Your task to perform on an android device: open app "DoorDash - Food Delivery" (install if not already installed) Image 0: 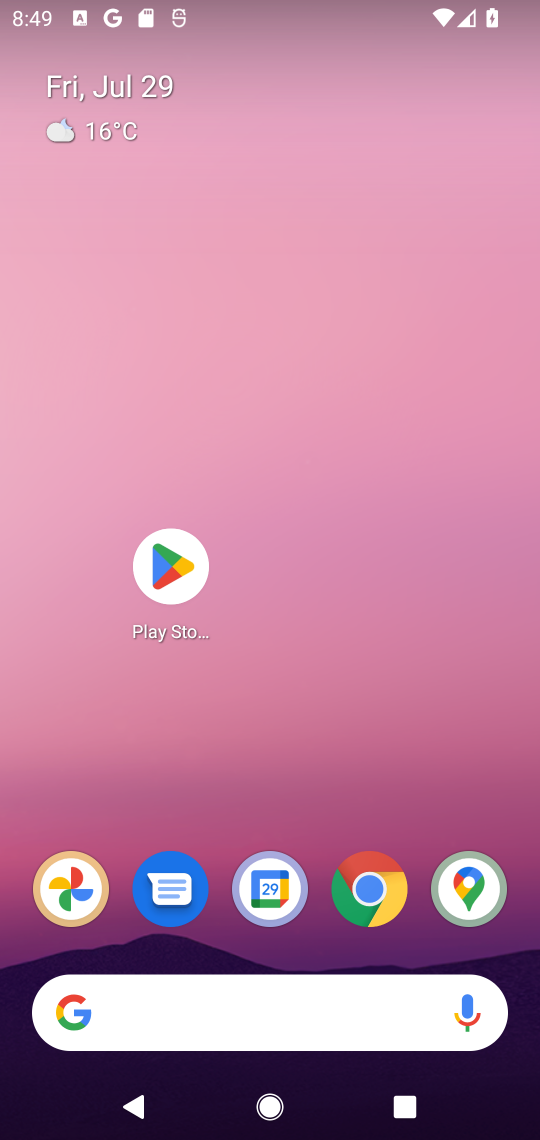
Step 0: press home button
Your task to perform on an android device: open app "DoorDash - Food Delivery" (install if not already installed) Image 1: 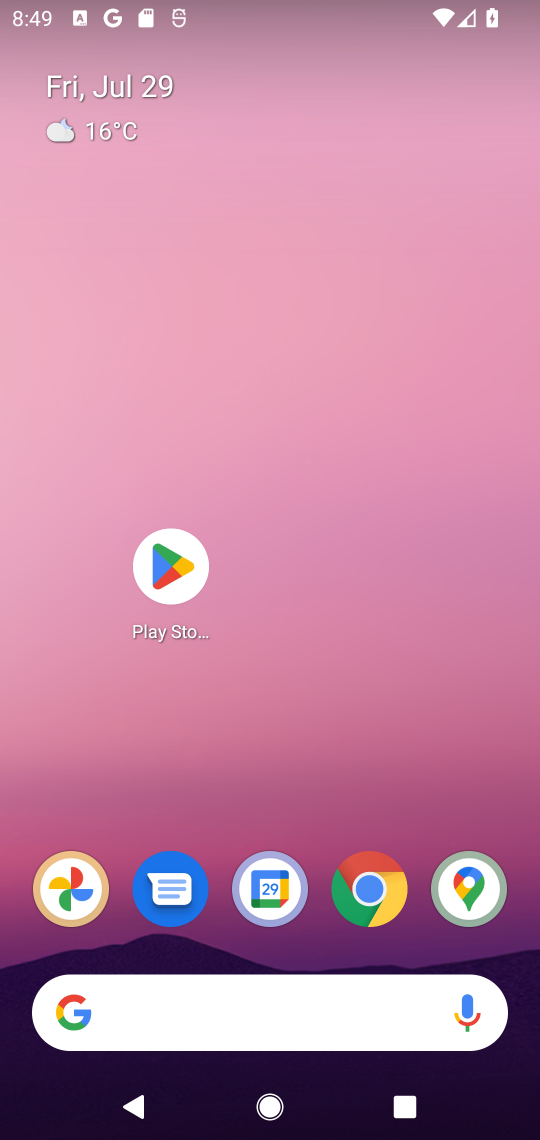
Step 1: click (166, 549)
Your task to perform on an android device: open app "DoorDash - Food Delivery" (install if not already installed) Image 2: 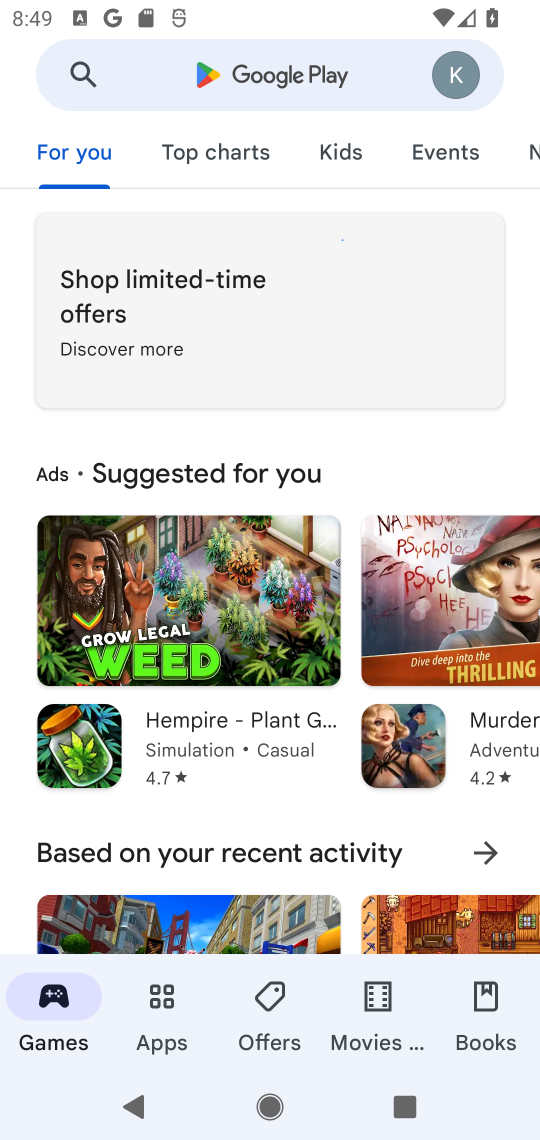
Step 2: click (364, 79)
Your task to perform on an android device: open app "DoorDash - Food Delivery" (install if not already installed) Image 3: 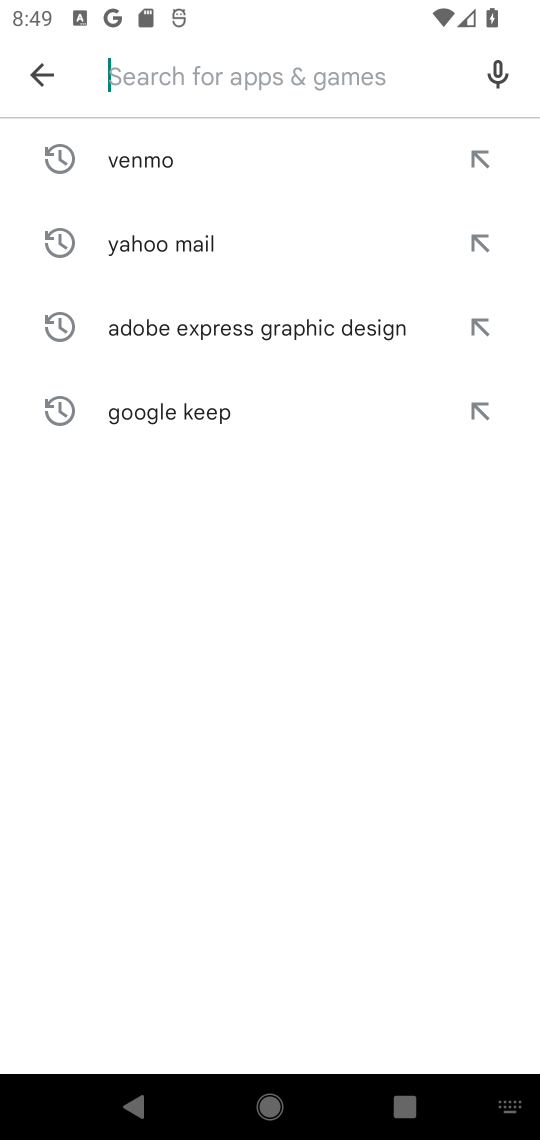
Step 3: type "DoorDash - Food Delivery"
Your task to perform on an android device: open app "DoorDash - Food Delivery" (install if not already installed) Image 4: 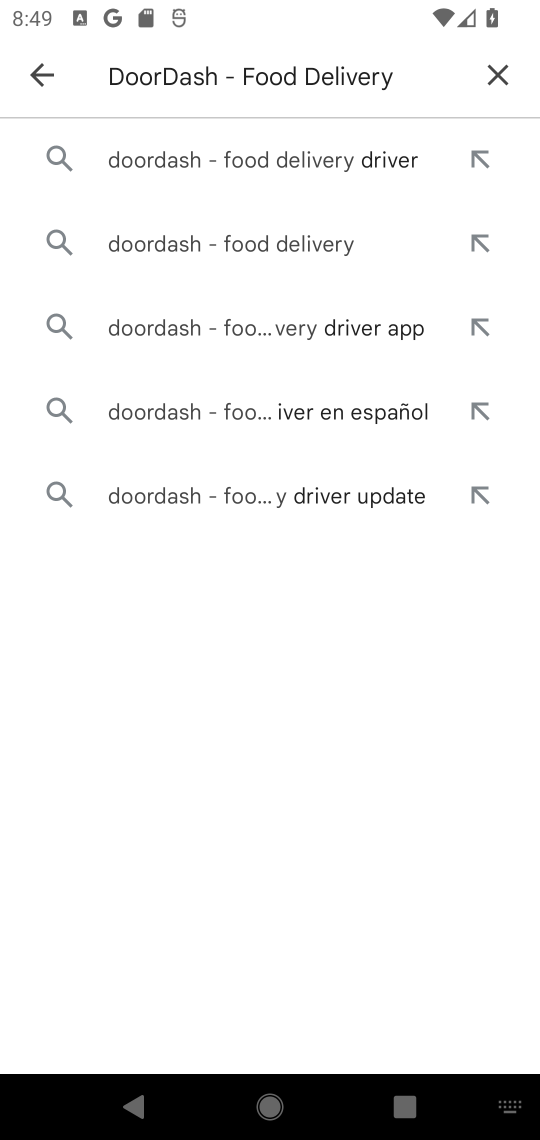
Step 4: click (234, 157)
Your task to perform on an android device: open app "DoorDash - Food Delivery" (install if not already installed) Image 5: 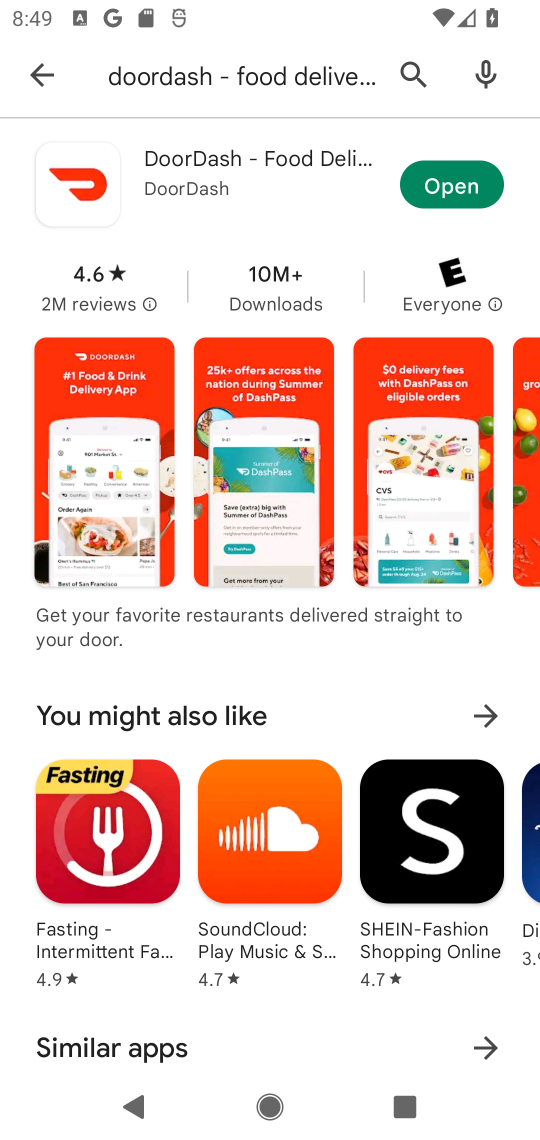
Step 5: click (435, 190)
Your task to perform on an android device: open app "DoorDash - Food Delivery" (install if not already installed) Image 6: 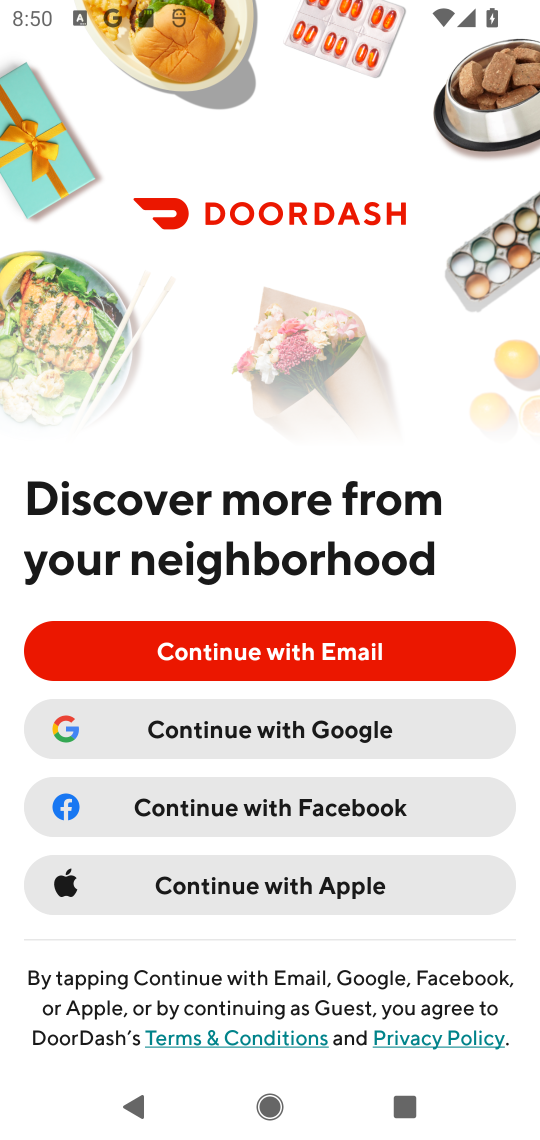
Step 6: task complete